Your task to perform on an android device: turn pop-ups off in chrome Image 0: 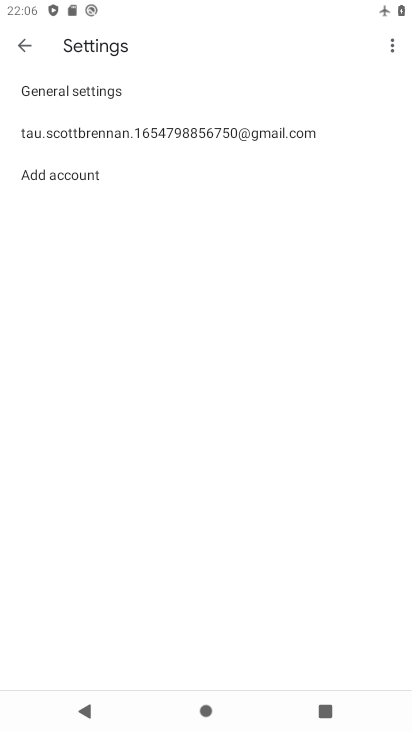
Step 0: press home button
Your task to perform on an android device: turn pop-ups off in chrome Image 1: 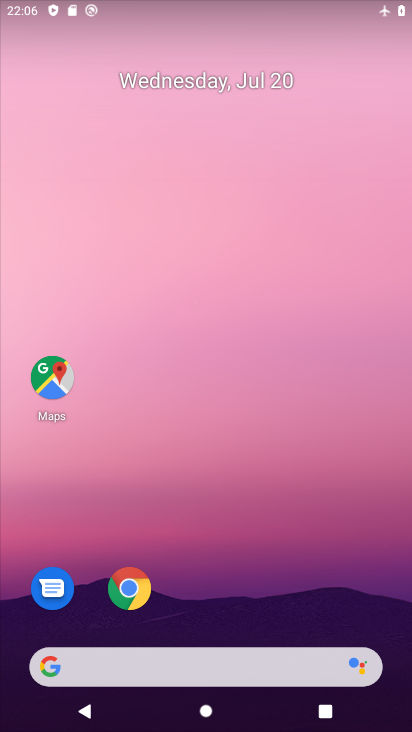
Step 1: click (129, 591)
Your task to perform on an android device: turn pop-ups off in chrome Image 2: 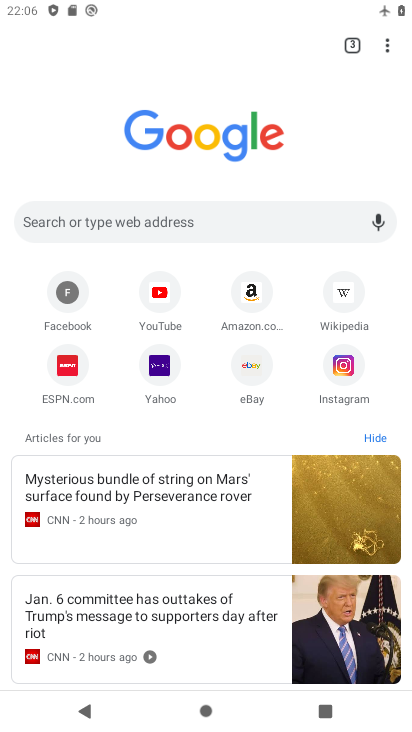
Step 2: click (387, 52)
Your task to perform on an android device: turn pop-ups off in chrome Image 3: 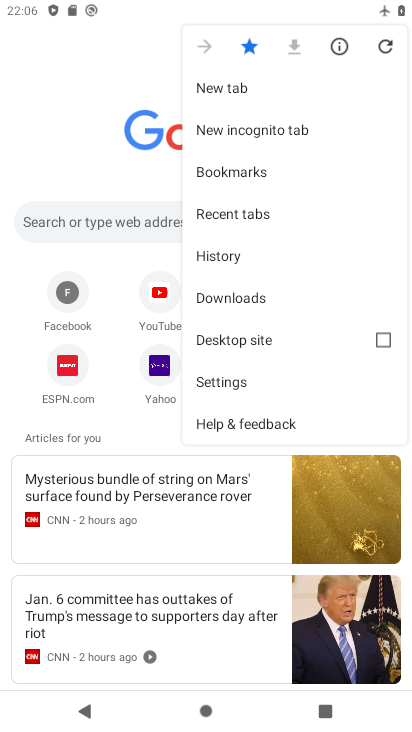
Step 3: click (237, 376)
Your task to perform on an android device: turn pop-ups off in chrome Image 4: 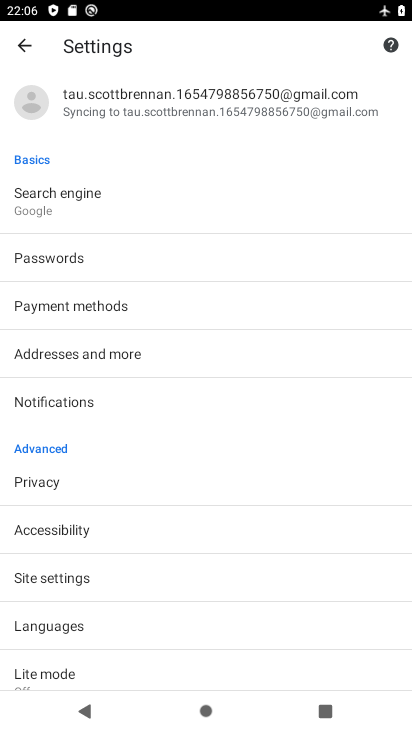
Step 4: click (60, 571)
Your task to perform on an android device: turn pop-ups off in chrome Image 5: 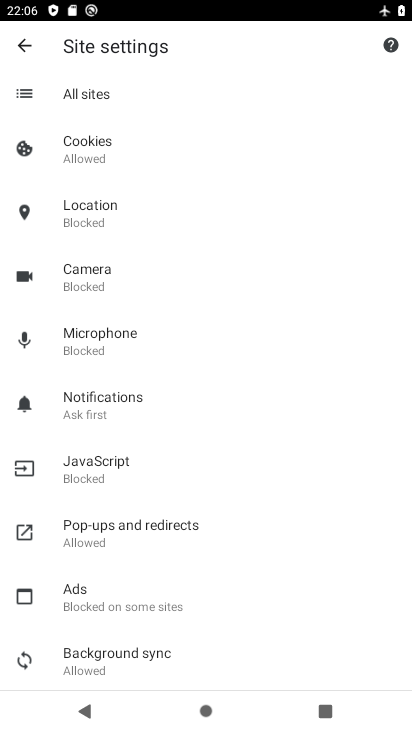
Step 5: click (99, 525)
Your task to perform on an android device: turn pop-ups off in chrome Image 6: 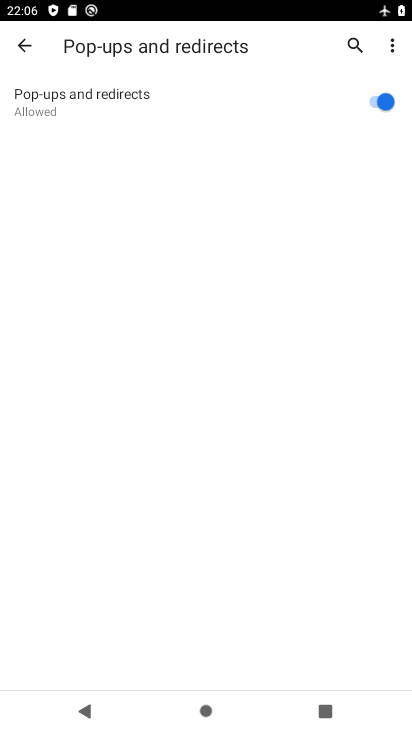
Step 6: click (372, 99)
Your task to perform on an android device: turn pop-ups off in chrome Image 7: 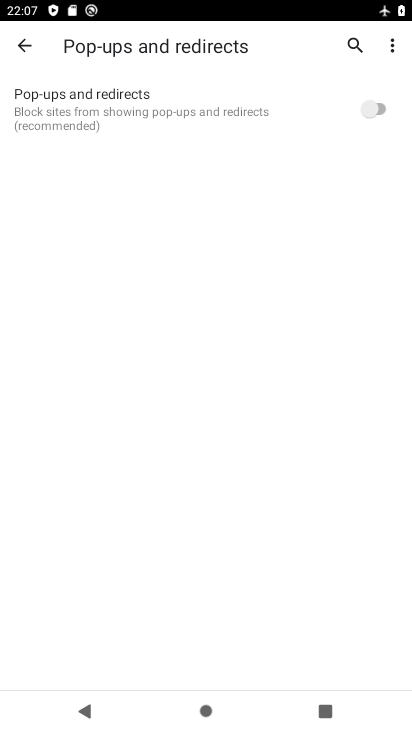
Step 7: task complete